Your task to perform on an android device: turn off picture-in-picture Image 0: 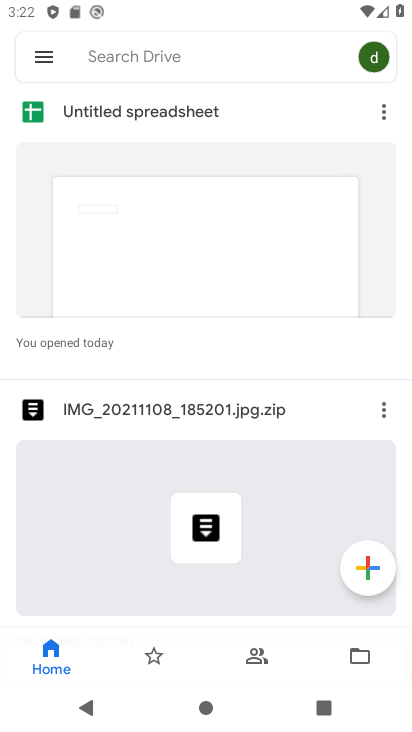
Step 0: press home button
Your task to perform on an android device: turn off picture-in-picture Image 1: 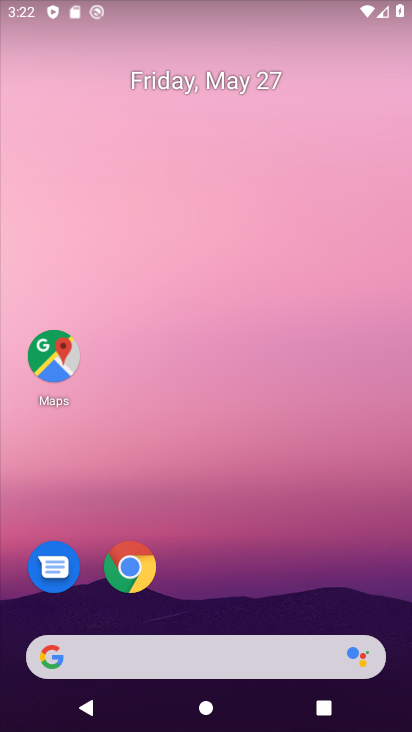
Step 1: drag from (369, 594) to (287, 35)
Your task to perform on an android device: turn off picture-in-picture Image 2: 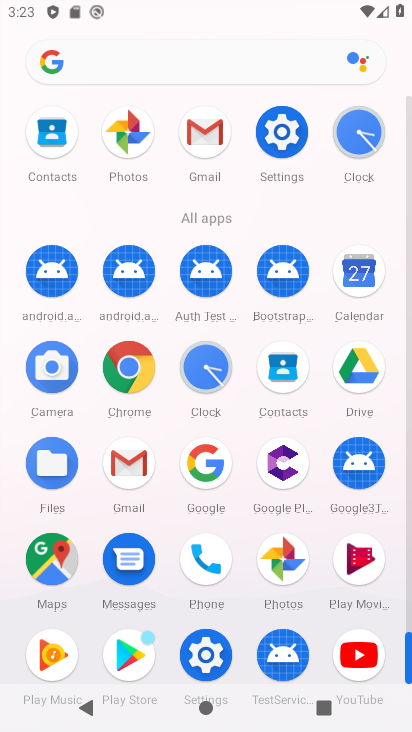
Step 2: click (200, 657)
Your task to perform on an android device: turn off picture-in-picture Image 3: 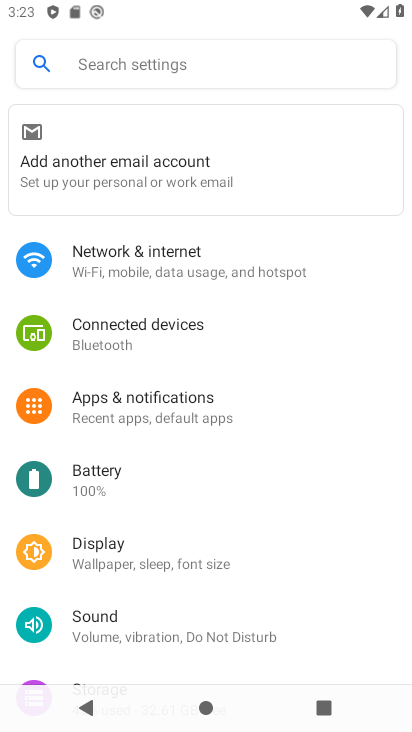
Step 3: click (171, 397)
Your task to perform on an android device: turn off picture-in-picture Image 4: 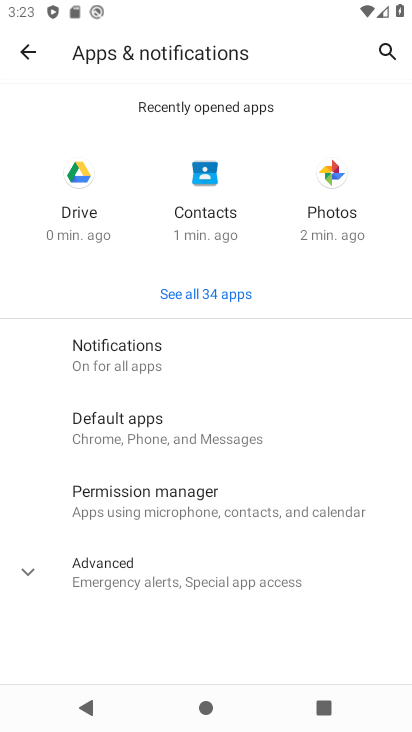
Step 4: click (36, 578)
Your task to perform on an android device: turn off picture-in-picture Image 5: 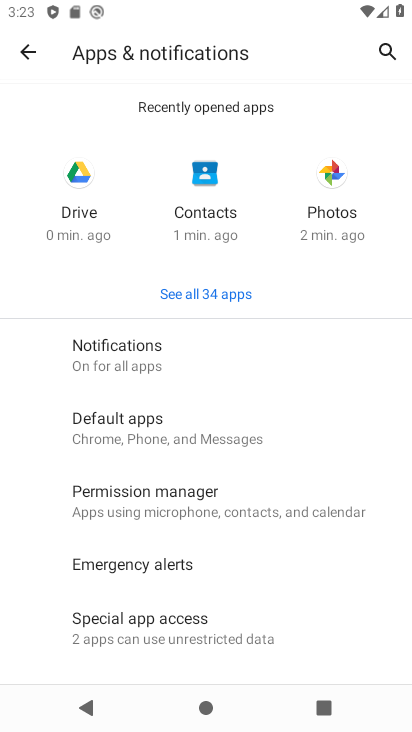
Step 5: drag from (306, 554) to (250, 167)
Your task to perform on an android device: turn off picture-in-picture Image 6: 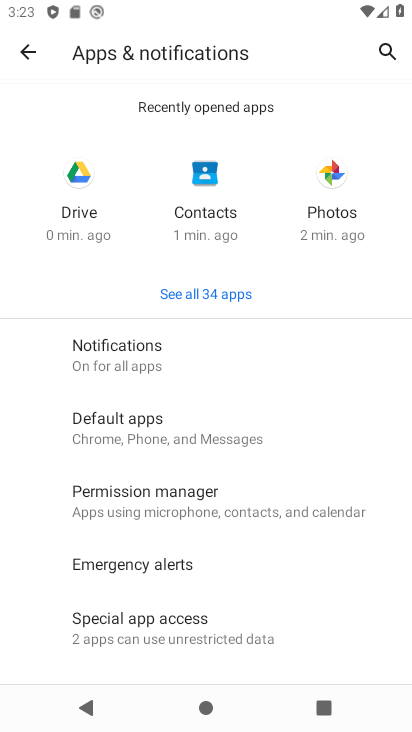
Step 6: click (80, 631)
Your task to perform on an android device: turn off picture-in-picture Image 7: 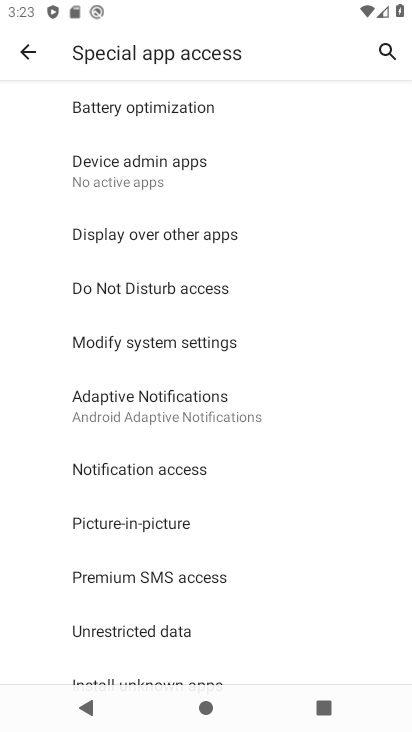
Step 7: click (120, 523)
Your task to perform on an android device: turn off picture-in-picture Image 8: 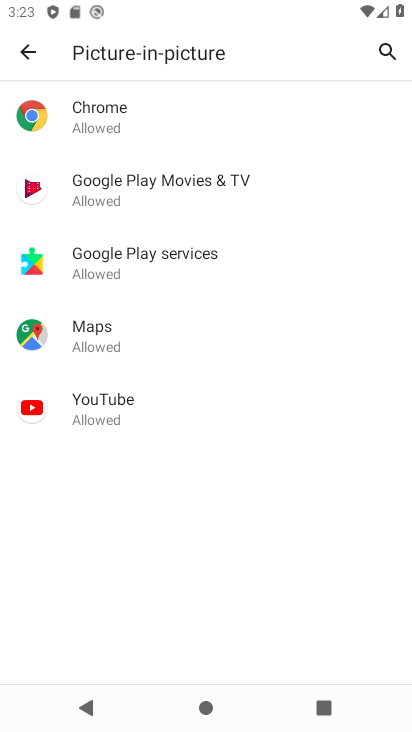
Step 8: click (101, 405)
Your task to perform on an android device: turn off picture-in-picture Image 9: 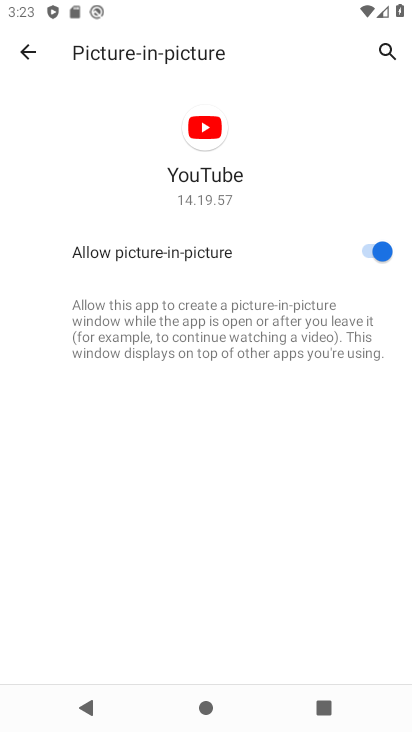
Step 9: click (365, 255)
Your task to perform on an android device: turn off picture-in-picture Image 10: 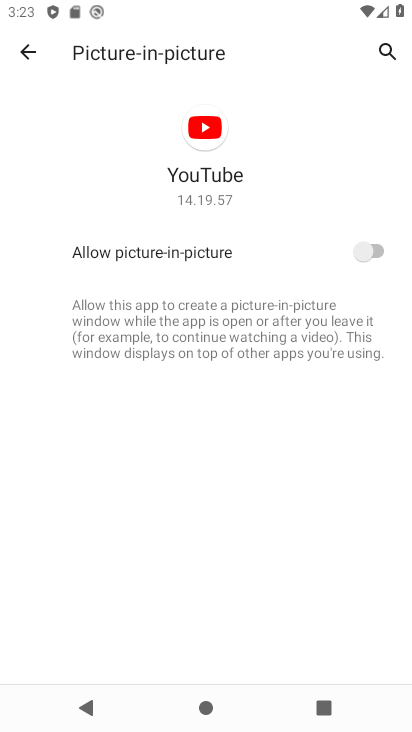
Step 10: task complete